Your task to perform on an android device: Open Youtube and go to "Your channel" Image 0: 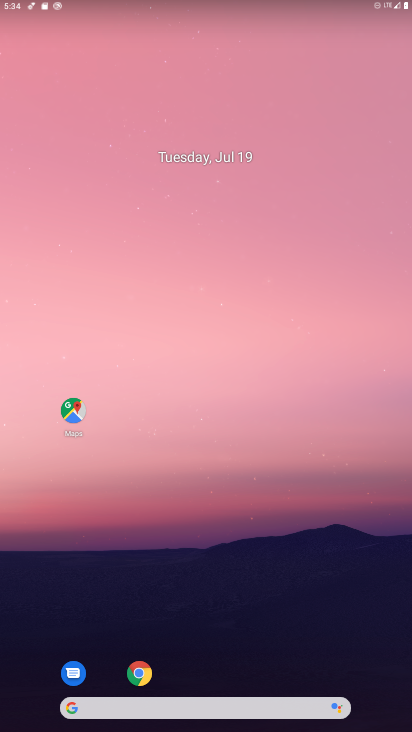
Step 0: drag from (201, 672) to (240, 51)
Your task to perform on an android device: Open Youtube and go to "Your channel" Image 1: 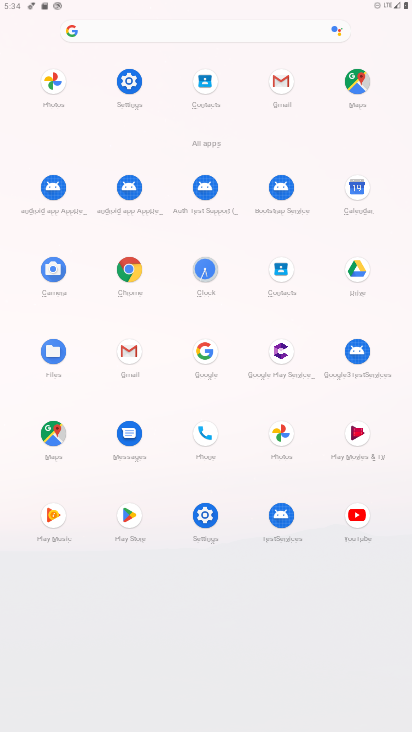
Step 1: click (353, 515)
Your task to perform on an android device: Open Youtube and go to "Your channel" Image 2: 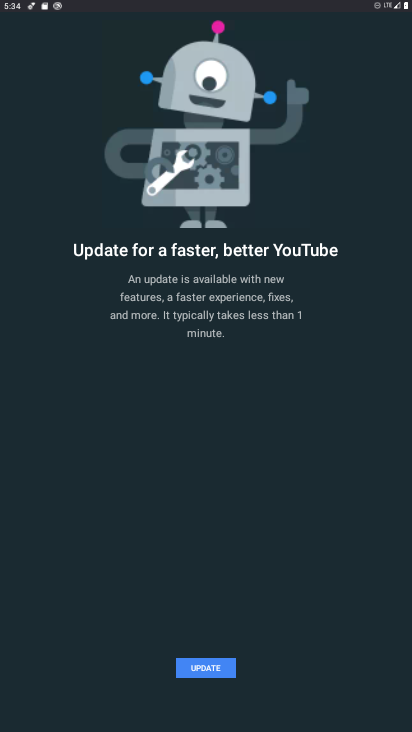
Step 2: click (206, 667)
Your task to perform on an android device: Open Youtube and go to "Your channel" Image 3: 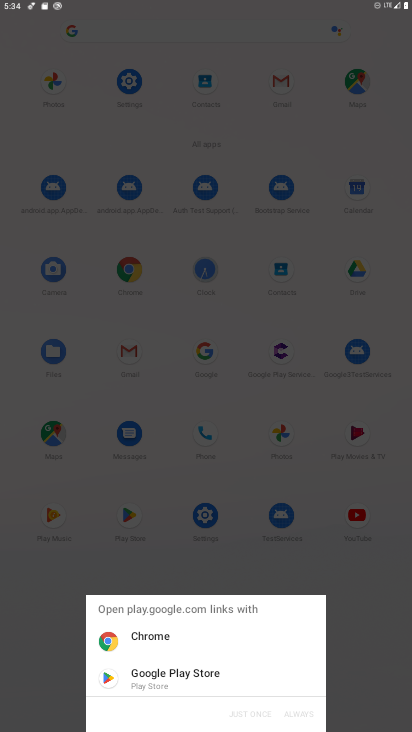
Step 3: click (187, 676)
Your task to perform on an android device: Open Youtube and go to "Your channel" Image 4: 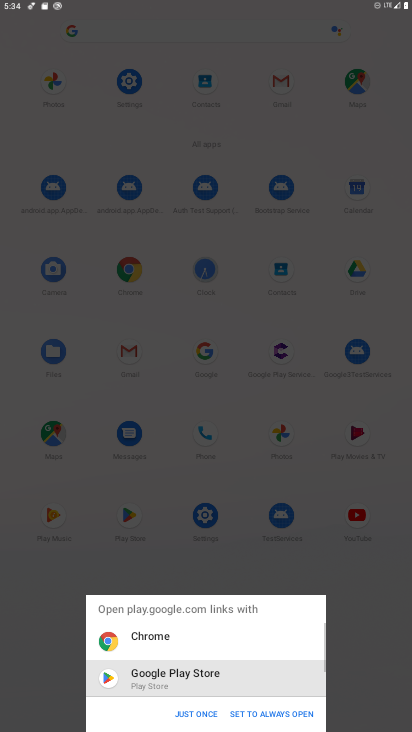
Step 4: click (191, 711)
Your task to perform on an android device: Open Youtube and go to "Your channel" Image 5: 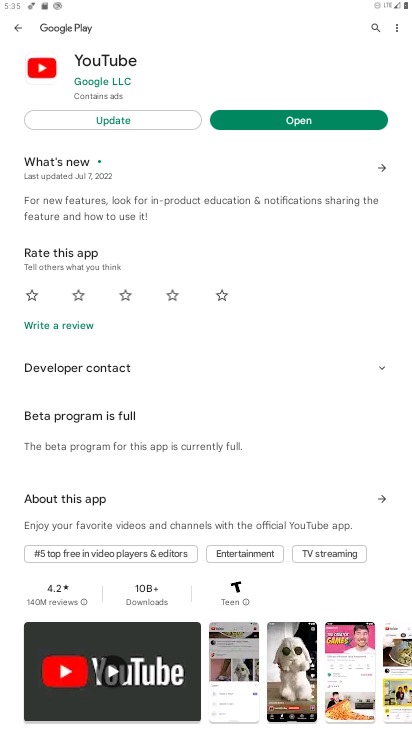
Step 5: click (115, 115)
Your task to perform on an android device: Open Youtube and go to "Your channel" Image 6: 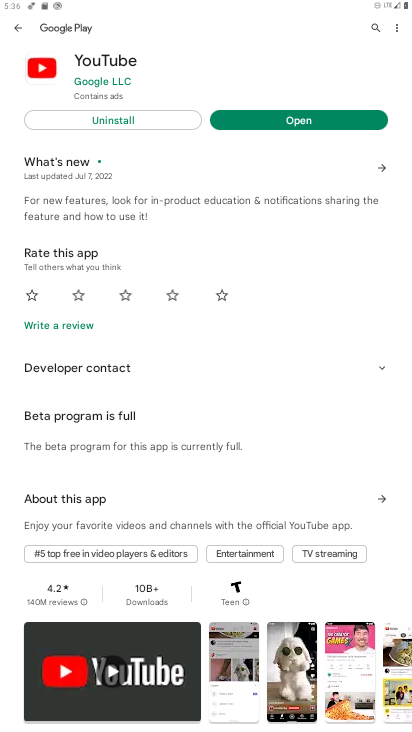
Step 6: click (295, 119)
Your task to perform on an android device: Open Youtube and go to "Your channel" Image 7: 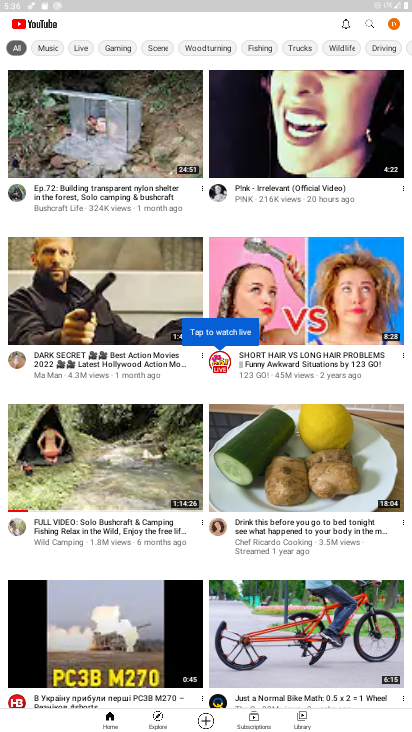
Step 7: task complete